Your task to perform on an android device: turn on location history Image 0: 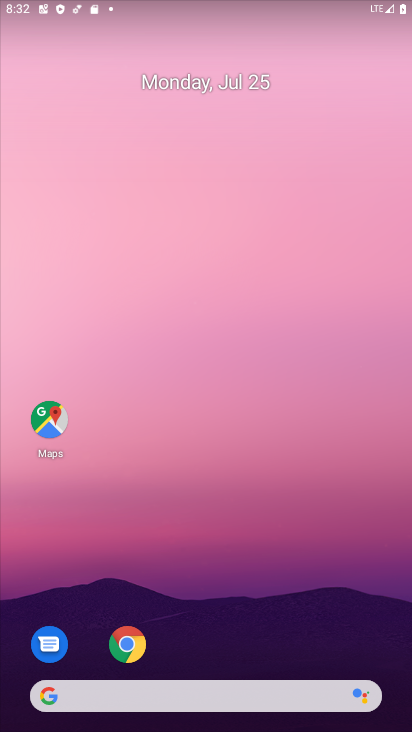
Step 0: drag from (294, 635) to (279, 137)
Your task to perform on an android device: turn on location history Image 1: 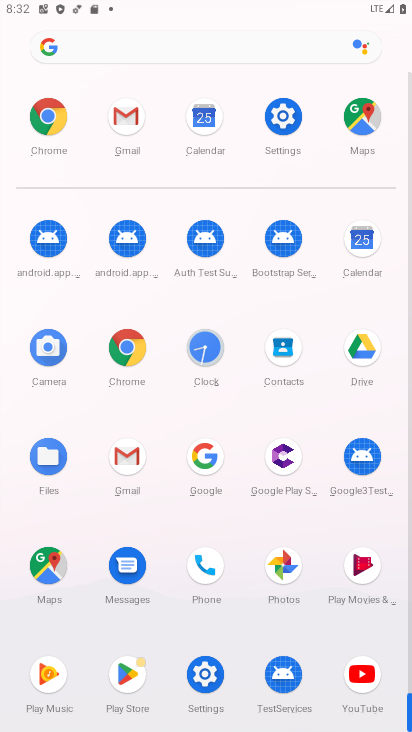
Step 1: click (201, 684)
Your task to perform on an android device: turn on location history Image 2: 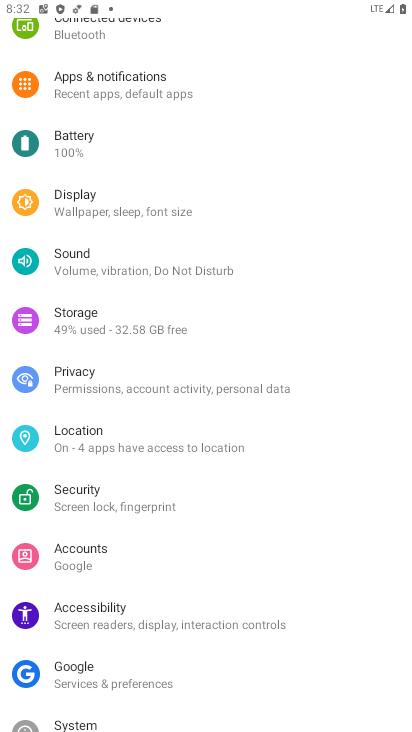
Step 2: click (98, 437)
Your task to perform on an android device: turn on location history Image 3: 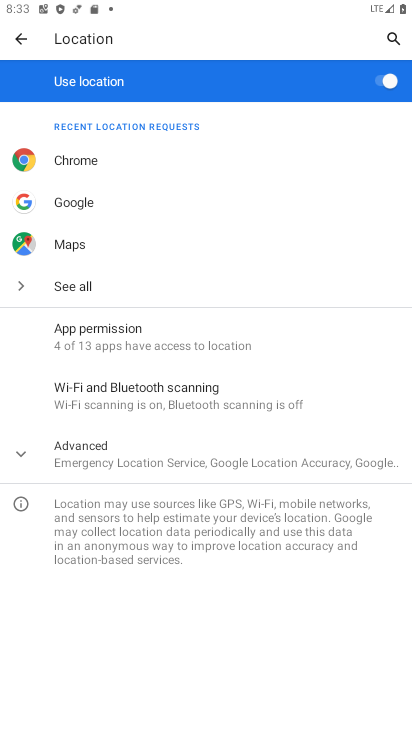
Step 3: click (150, 447)
Your task to perform on an android device: turn on location history Image 4: 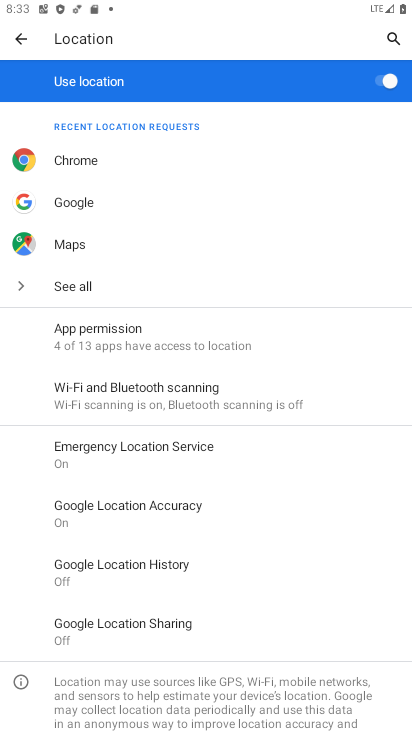
Step 4: click (165, 568)
Your task to perform on an android device: turn on location history Image 5: 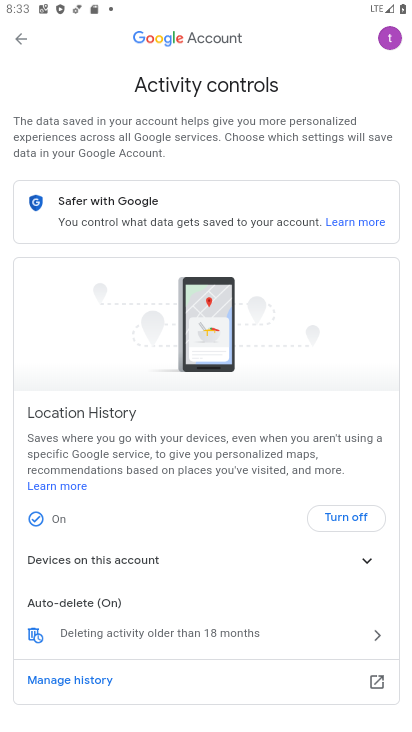
Step 5: task complete